Your task to perform on an android device: empty trash in google photos Image 0: 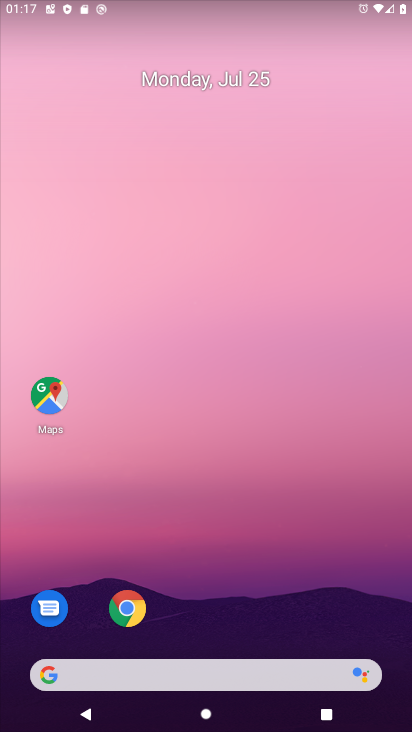
Step 0: drag from (192, 688) to (147, 7)
Your task to perform on an android device: empty trash in google photos Image 1: 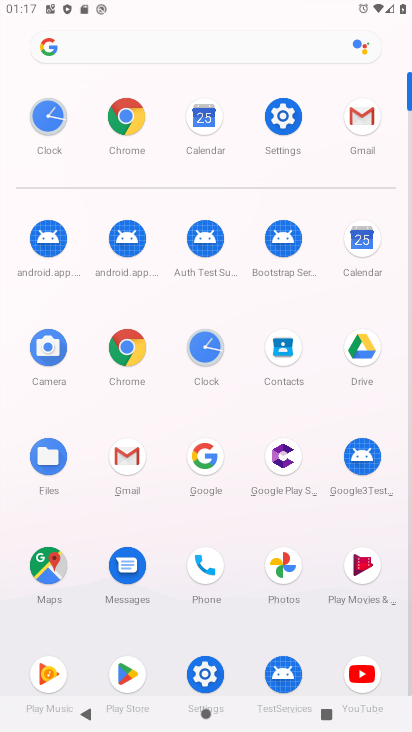
Step 1: click (273, 570)
Your task to perform on an android device: empty trash in google photos Image 2: 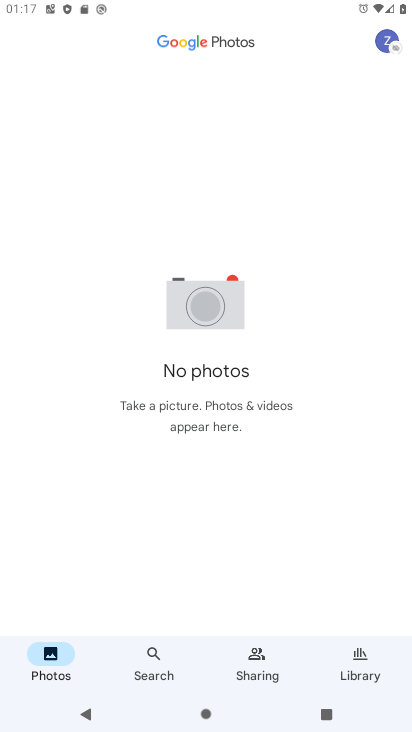
Step 2: click (347, 681)
Your task to perform on an android device: empty trash in google photos Image 3: 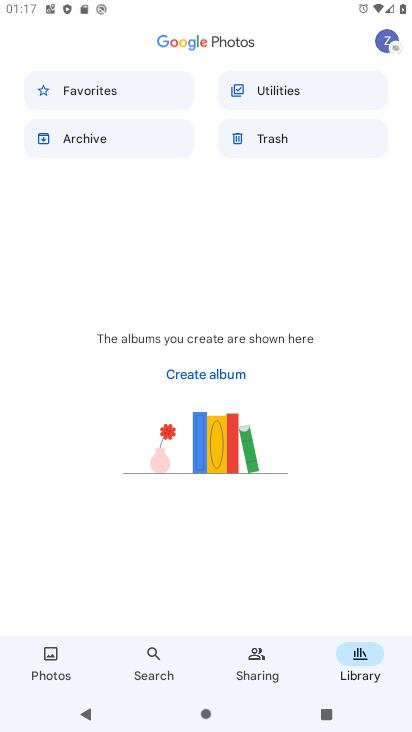
Step 3: click (262, 142)
Your task to perform on an android device: empty trash in google photos Image 4: 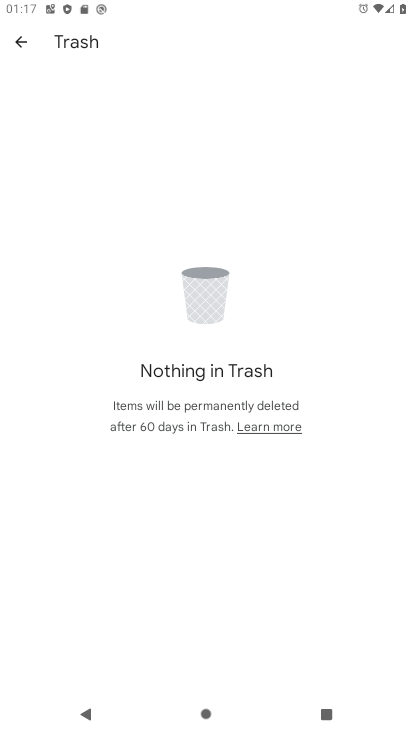
Step 4: task complete